Your task to perform on an android device: Go to privacy settings Image 0: 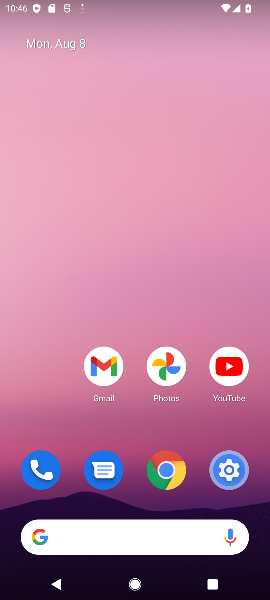
Step 0: click (226, 462)
Your task to perform on an android device: Go to privacy settings Image 1: 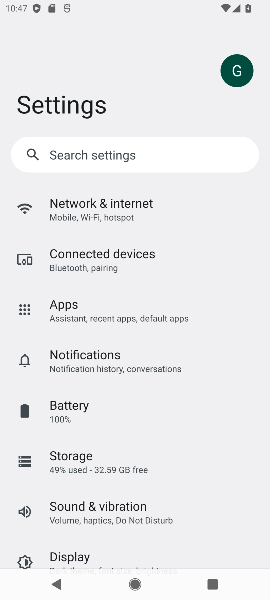
Step 1: drag from (175, 422) to (175, 158)
Your task to perform on an android device: Go to privacy settings Image 2: 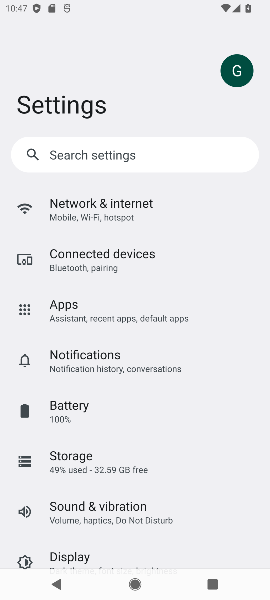
Step 2: drag from (94, 437) to (120, 215)
Your task to perform on an android device: Go to privacy settings Image 3: 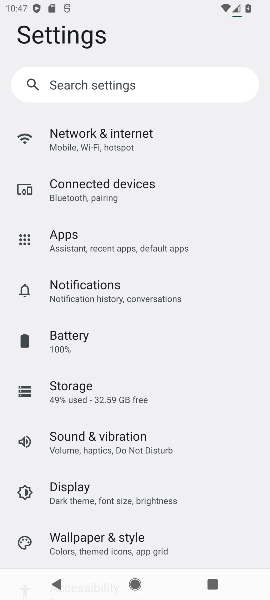
Step 3: drag from (132, 483) to (133, 234)
Your task to perform on an android device: Go to privacy settings Image 4: 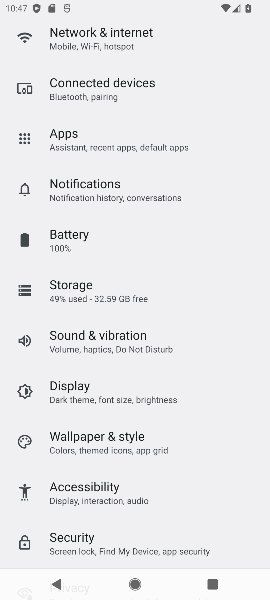
Step 4: drag from (142, 421) to (174, 309)
Your task to perform on an android device: Go to privacy settings Image 5: 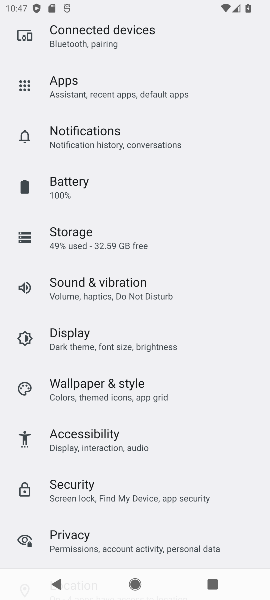
Step 5: click (91, 538)
Your task to perform on an android device: Go to privacy settings Image 6: 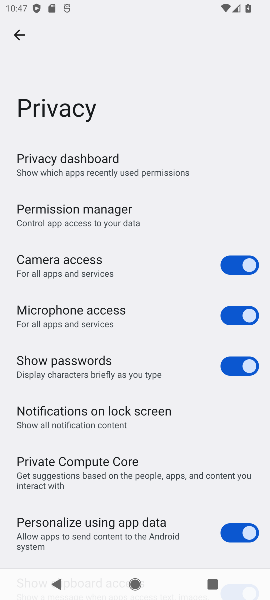
Step 6: task complete